Your task to perform on an android device: turn on sleep mode Image 0: 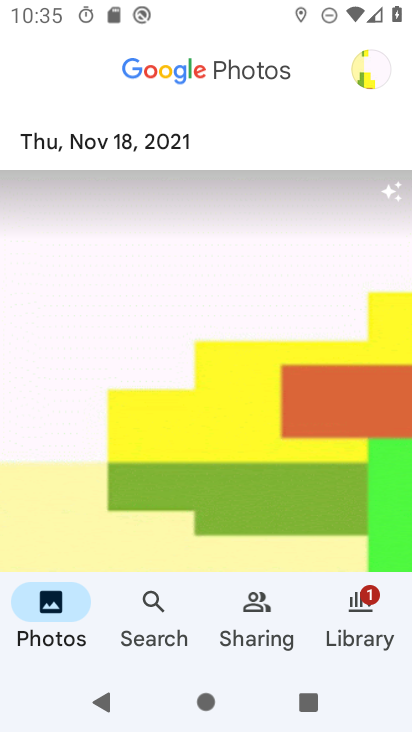
Step 0: press home button
Your task to perform on an android device: turn on sleep mode Image 1: 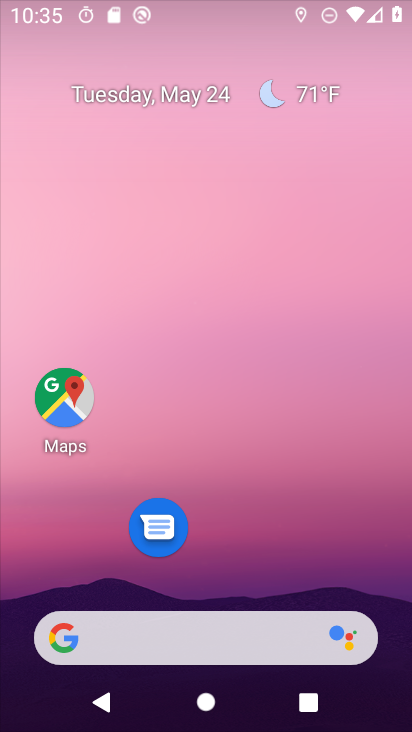
Step 1: drag from (240, 533) to (271, 81)
Your task to perform on an android device: turn on sleep mode Image 2: 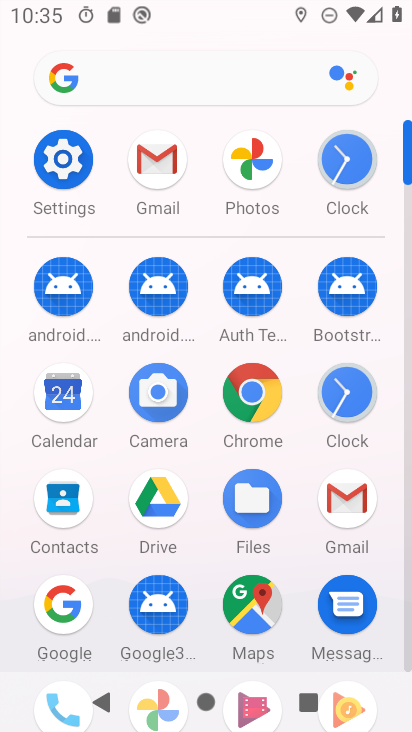
Step 2: click (61, 149)
Your task to perform on an android device: turn on sleep mode Image 3: 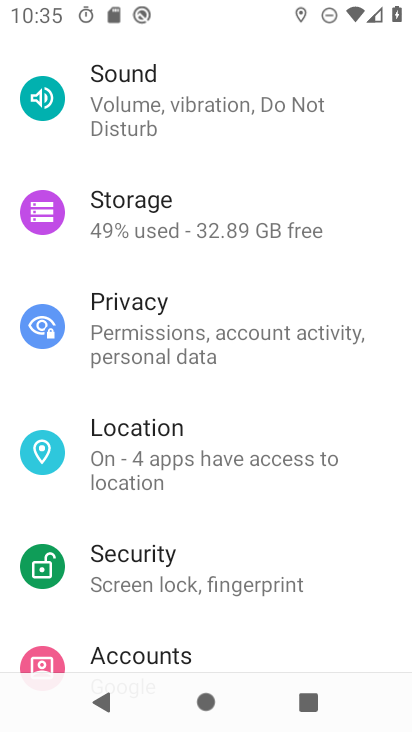
Step 3: drag from (221, 545) to (244, 17)
Your task to perform on an android device: turn on sleep mode Image 4: 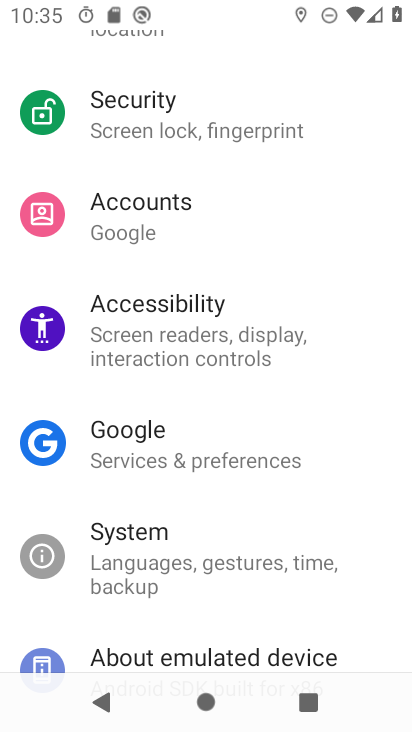
Step 4: drag from (234, 539) to (248, 198)
Your task to perform on an android device: turn on sleep mode Image 5: 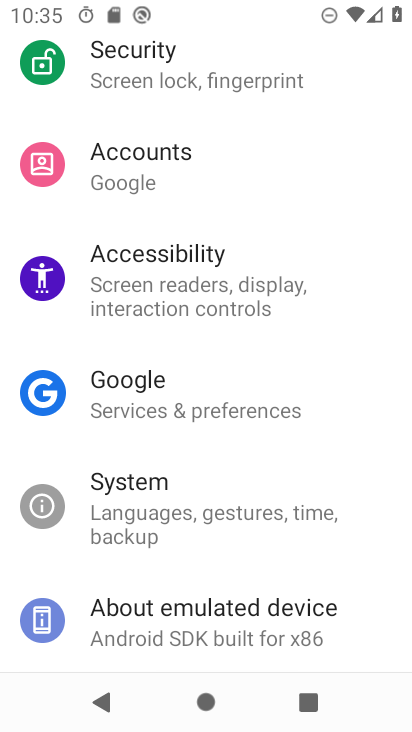
Step 5: drag from (211, 145) to (223, 614)
Your task to perform on an android device: turn on sleep mode Image 6: 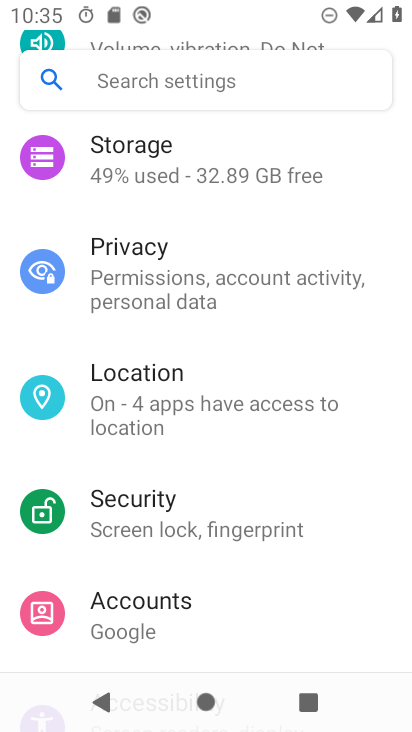
Step 6: drag from (193, 198) to (193, 557)
Your task to perform on an android device: turn on sleep mode Image 7: 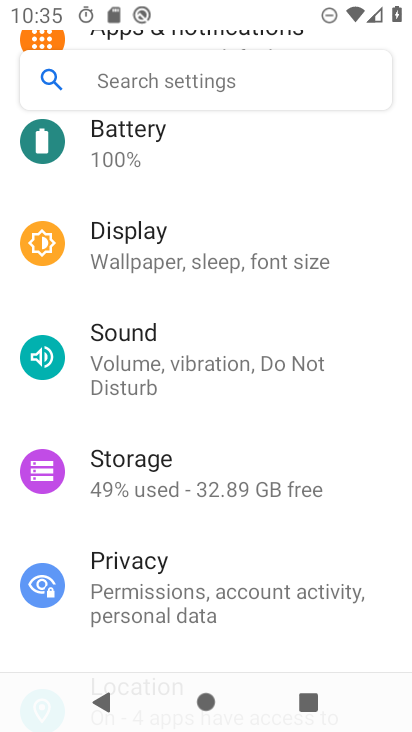
Step 7: click (162, 248)
Your task to perform on an android device: turn on sleep mode Image 8: 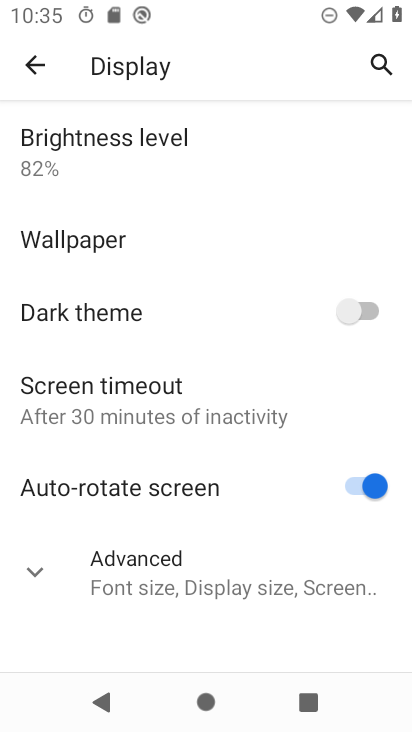
Step 8: click (116, 392)
Your task to perform on an android device: turn on sleep mode Image 9: 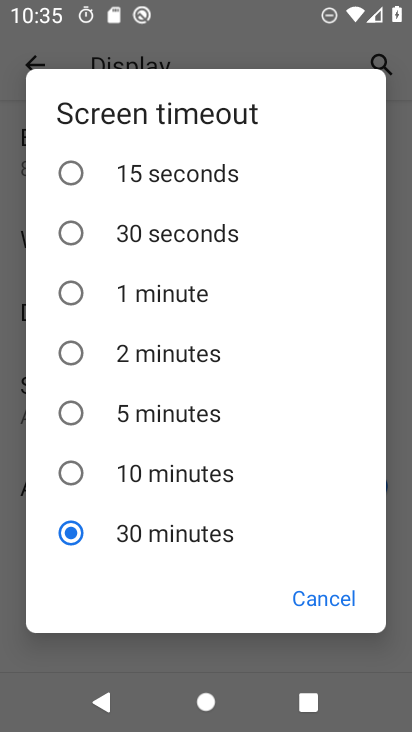
Step 9: task complete